Your task to perform on an android device: Go to battery settings Image 0: 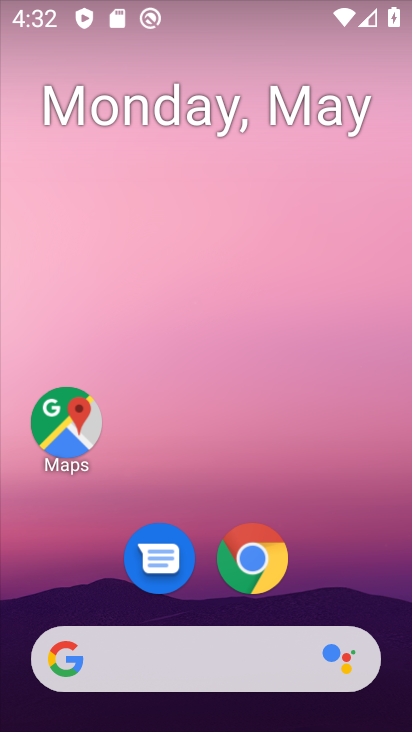
Step 0: drag from (326, 521) to (254, 76)
Your task to perform on an android device: Go to battery settings Image 1: 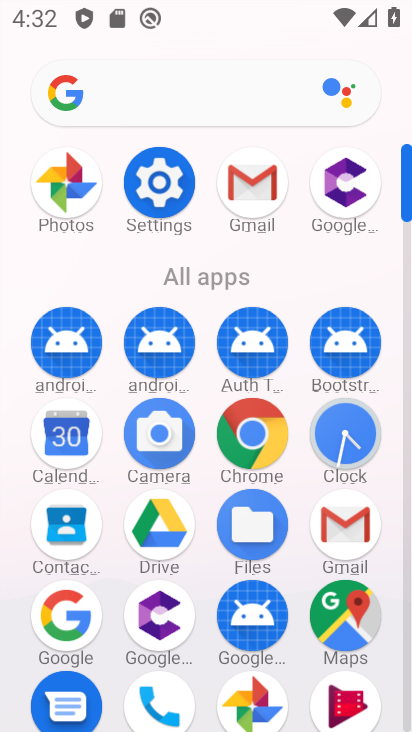
Step 1: click (156, 190)
Your task to perform on an android device: Go to battery settings Image 2: 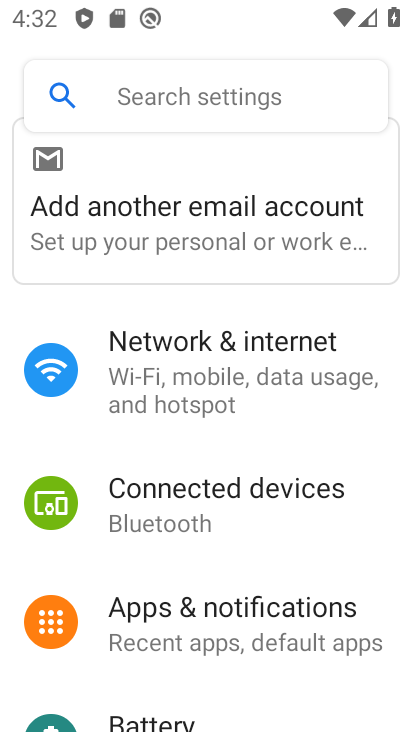
Step 2: click (171, 710)
Your task to perform on an android device: Go to battery settings Image 3: 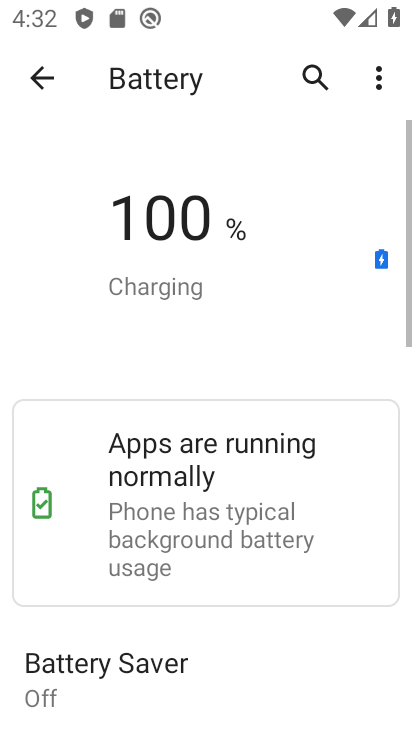
Step 3: task complete